Your task to perform on an android device: change the clock display to digital Image 0: 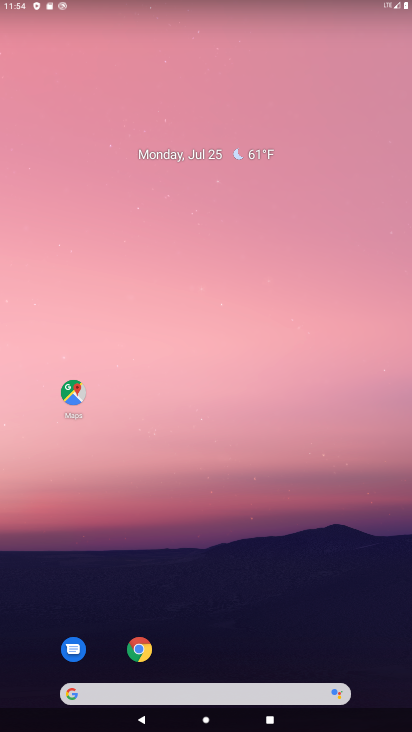
Step 0: drag from (207, 672) to (145, 33)
Your task to perform on an android device: change the clock display to digital Image 1: 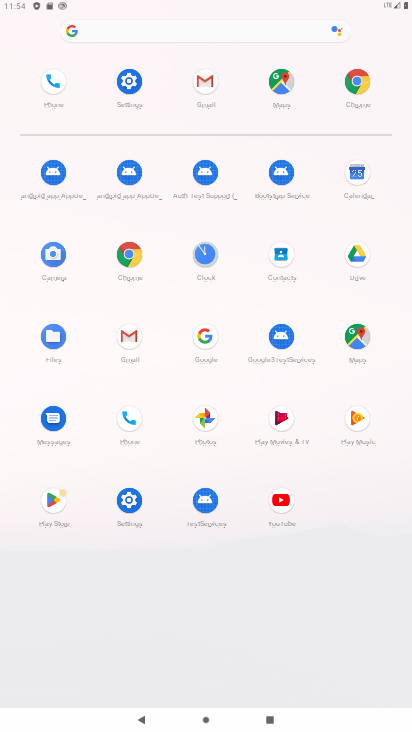
Step 1: click (205, 259)
Your task to perform on an android device: change the clock display to digital Image 2: 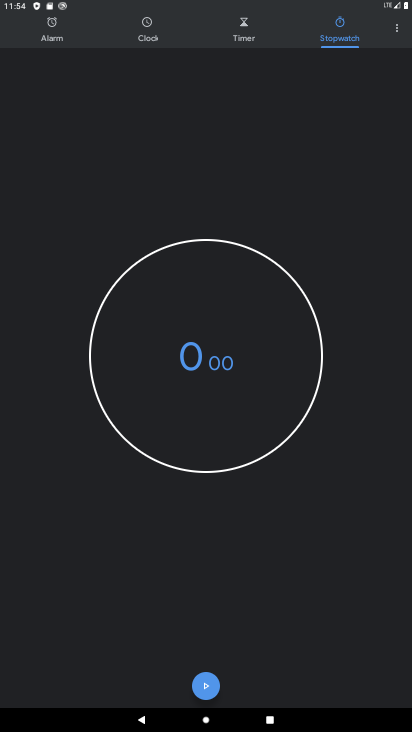
Step 2: click (391, 26)
Your task to perform on an android device: change the clock display to digital Image 3: 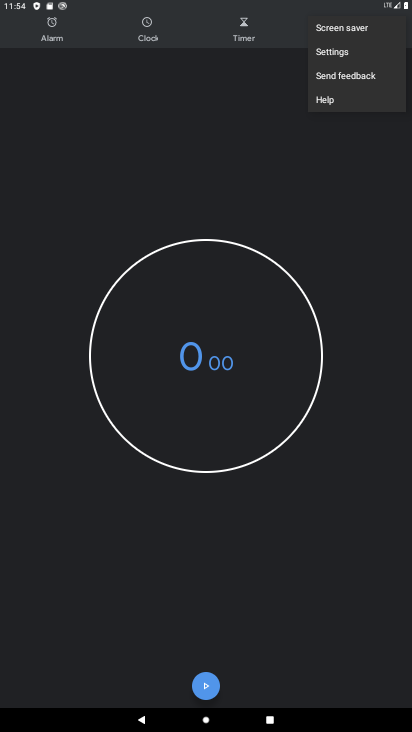
Step 3: click (339, 45)
Your task to perform on an android device: change the clock display to digital Image 4: 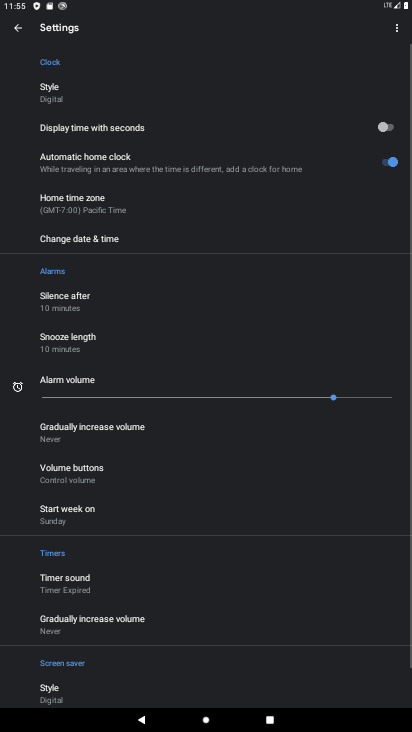
Step 4: click (56, 89)
Your task to perform on an android device: change the clock display to digital Image 5: 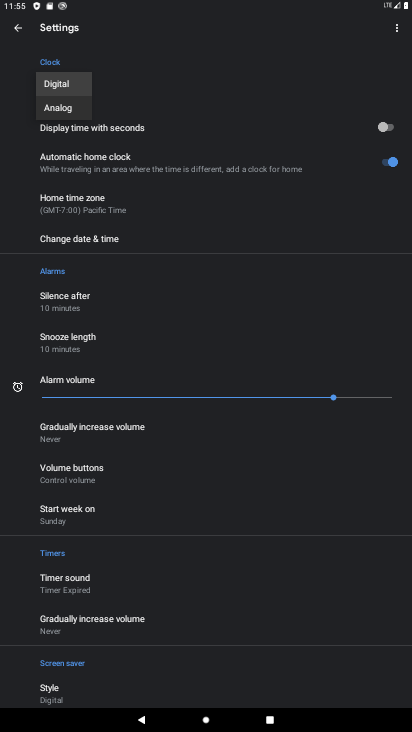
Step 5: click (57, 87)
Your task to perform on an android device: change the clock display to digital Image 6: 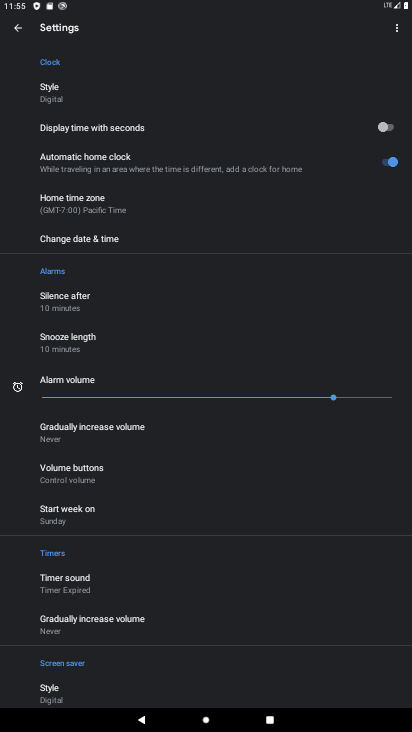
Step 6: task complete